Your task to perform on an android device: Show me productivity apps on the Play Store Image 0: 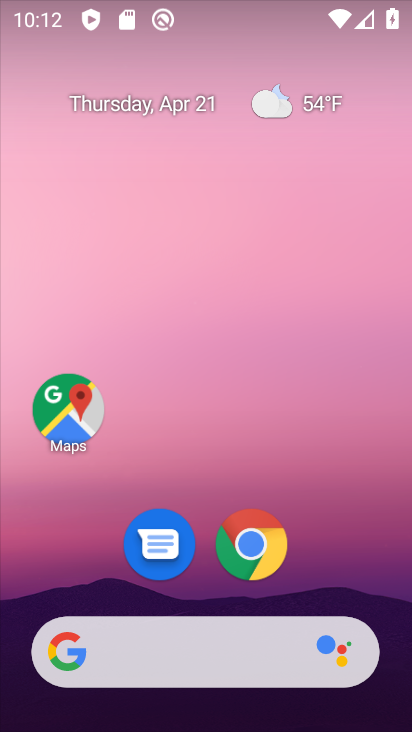
Step 0: drag from (102, 494) to (240, 186)
Your task to perform on an android device: Show me productivity apps on the Play Store Image 1: 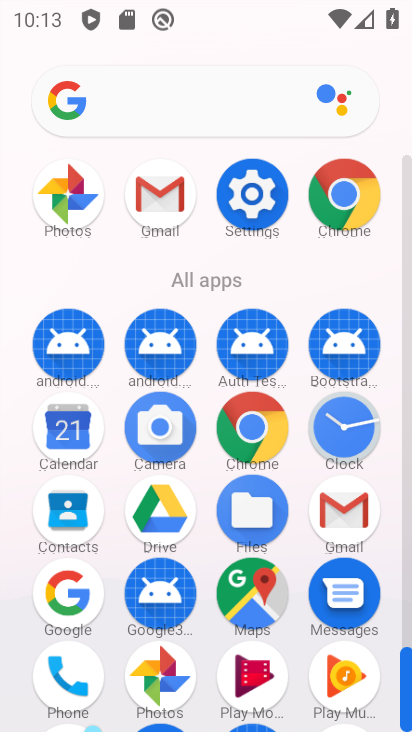
Step 1: drag from (134, 664) to (306, 266)
Your task to perform on an android device: Show me productivity apps on the Play Store Image 2: 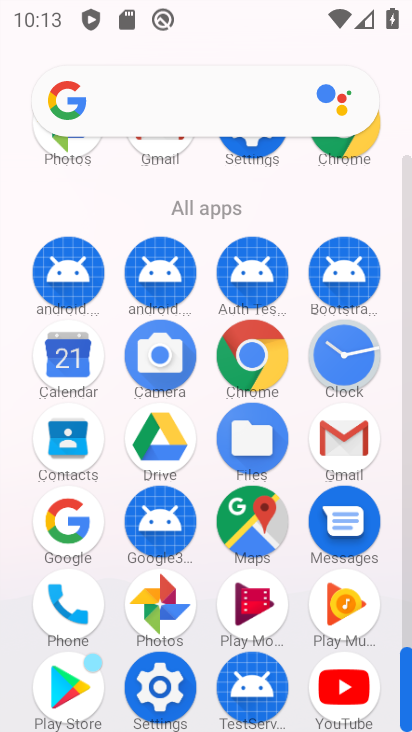
Step 2: click (76, 681)
Your task to perform on an android device: Show me productivity apps on the Play Store Image 3: 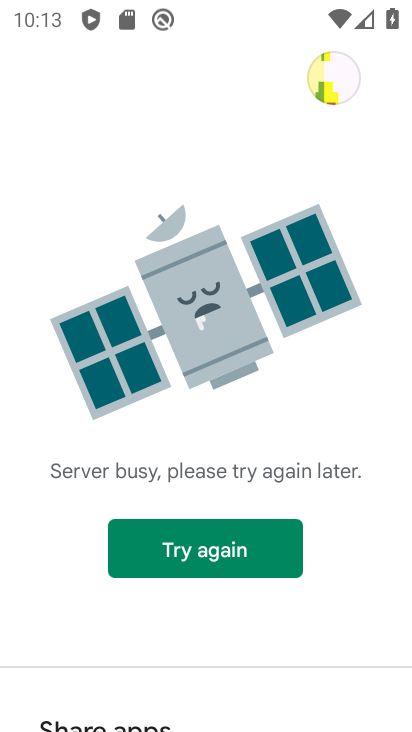
Step 3: task complete